Your task to perform on an android device: Go to Reddit.com Image 0: 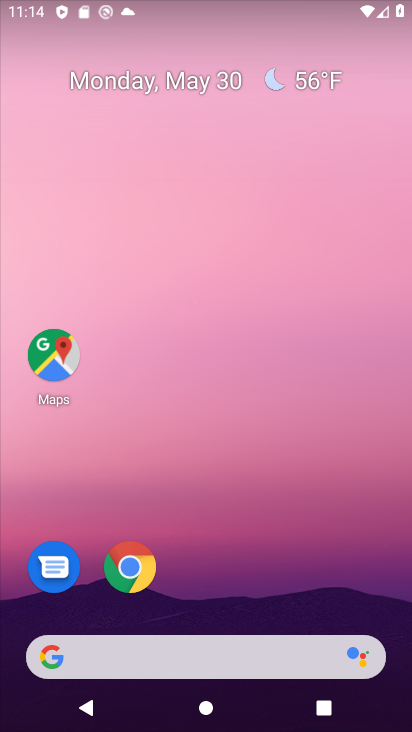
Step 0: drag from (214, 596) to (240, 36)
Your task to perform on an android device: Go to Reddit.com Image 1: 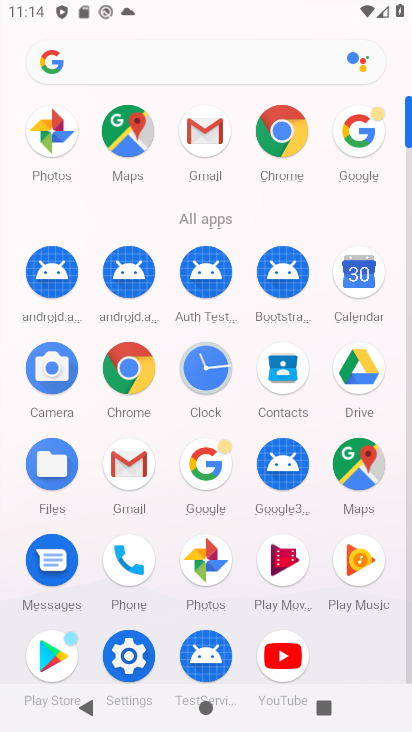
Step 1: click (213, 467)
Your task to perform on an android device: Go to Reddit.com Image 2: 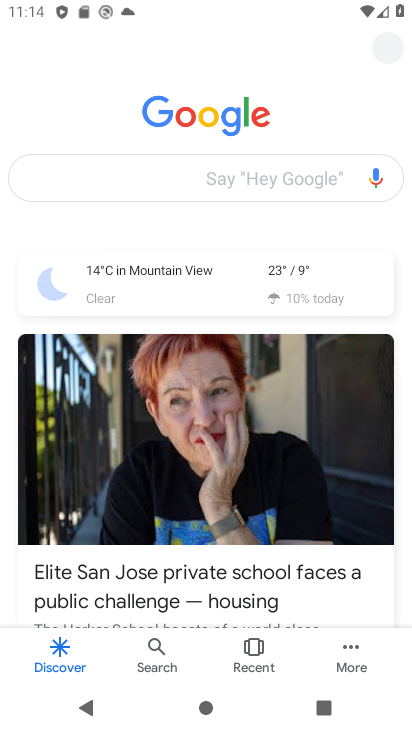
Step 2: click (160, 169)
Your task to perform on an android device: Go to Reddit.com Image 3: 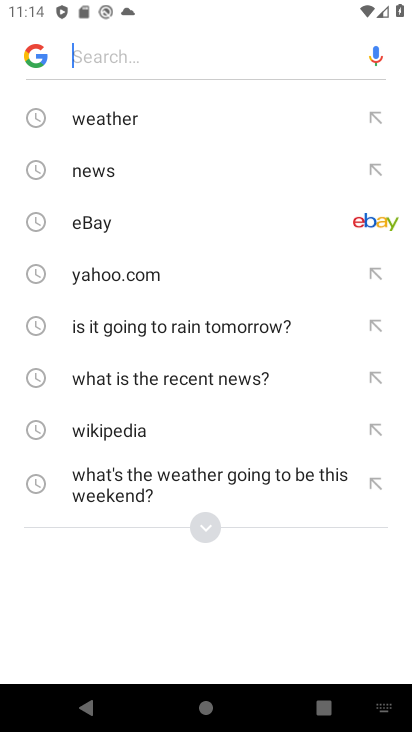
Step 3: click (205, 536)
Your task to perform on an android device: Go to Reddit.com Image 4: 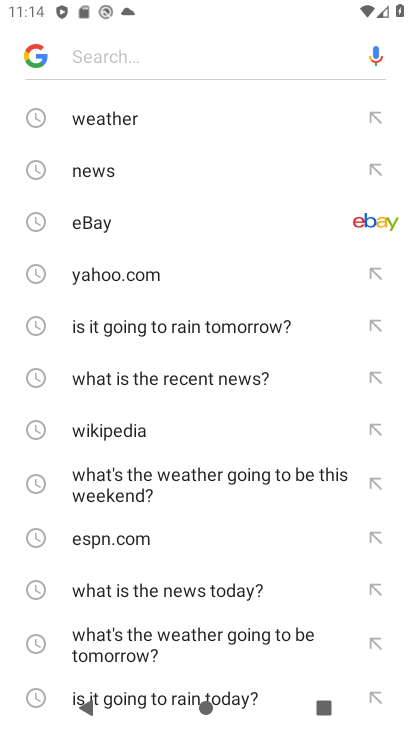
Step 4: drag from (190, 564) to (203, 91)
Your task to perform on an android device: Go to Reddit.com Image 5: 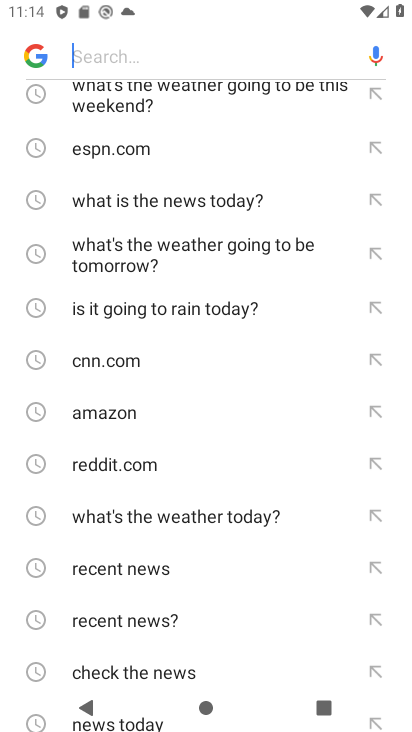
Step 5: click (133, 469)
Your task to perform on an android device: Go to Reddit.com Image 6: 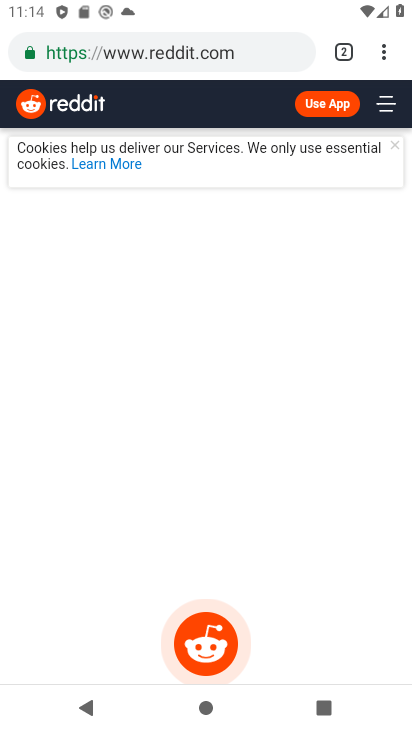
Step 6: task complete